Your task to perform on an android device: change text size in settings app Image 0: 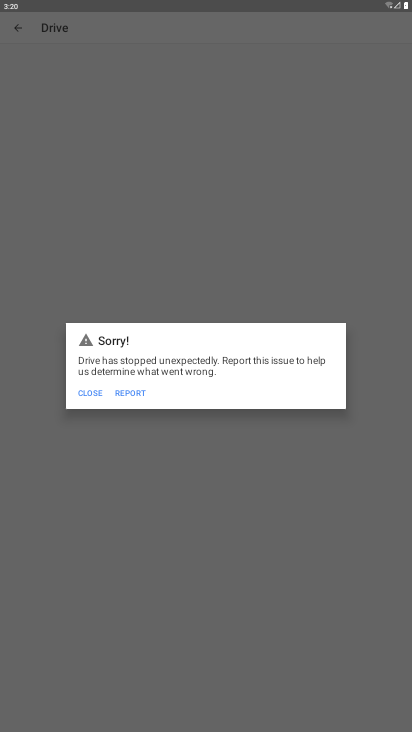
Step 0: press home button
Your task to perform on an android device: change text size in settings app Image 1: 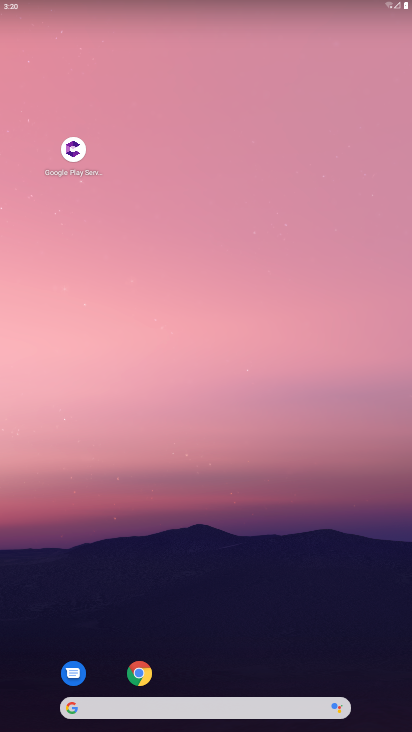
Step 1: drag from (157, 701) to (297, 138)
Your task to perform on an android device: change text size in settings app Image 2: 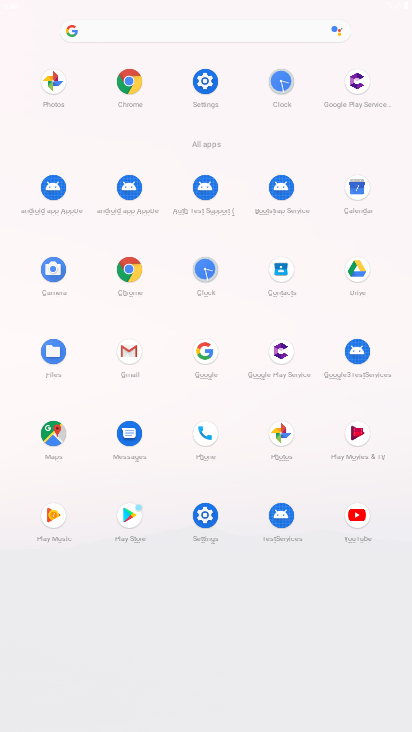
Step 2: click (206, 87)
Your task to perform on an android device: change text size in settings app Image 3: 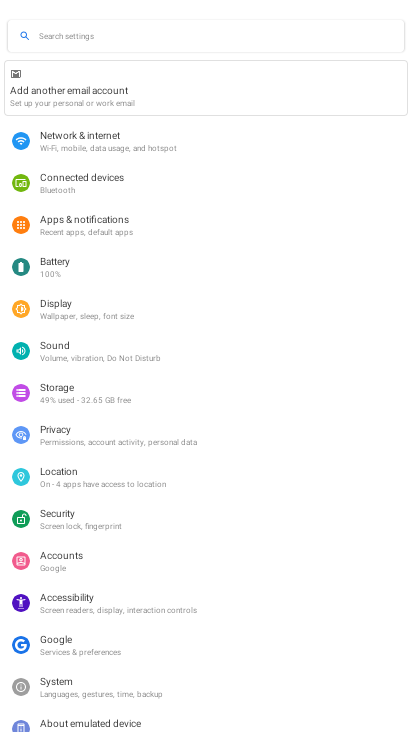
Step 3: click (119, 316)
Your task to perform on an android device: change text size in settings app Image 4: 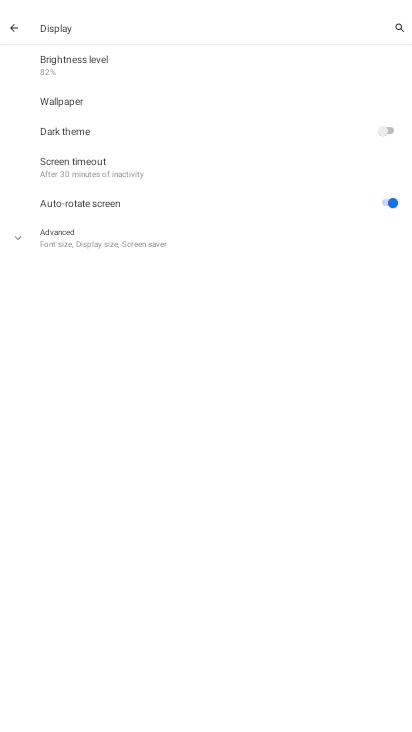
Step 4: click (73, 243)
Your task to perform on an android device: change text size in settings app Image 5: 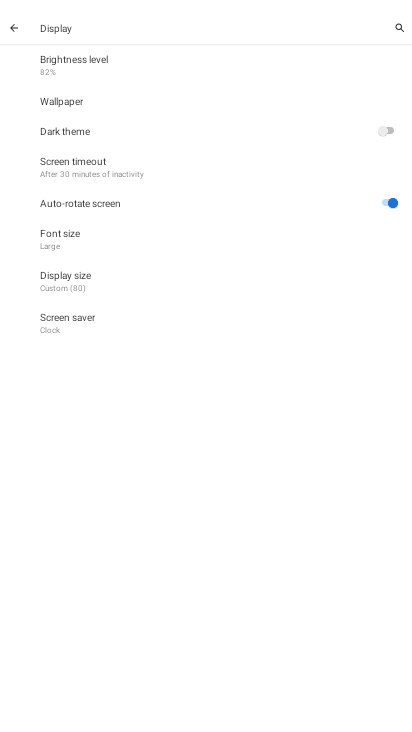
Step 5: click (67, 242)
Your task to perform on an android device: change text size in settings app Image 6: 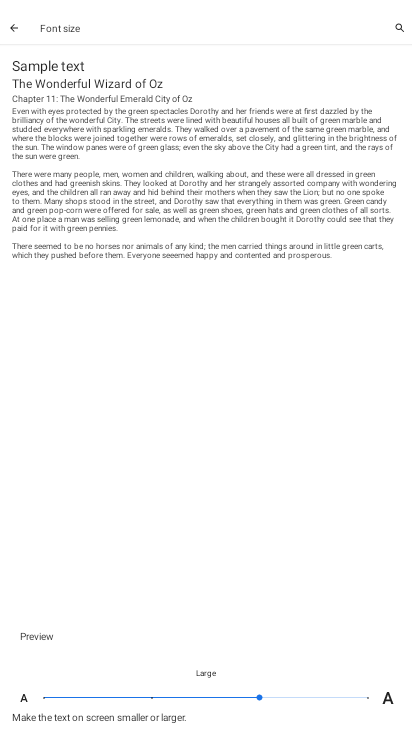
Step 6: click (366, 698)
Your task to perform on an android device: change text size in settings app Image 7: 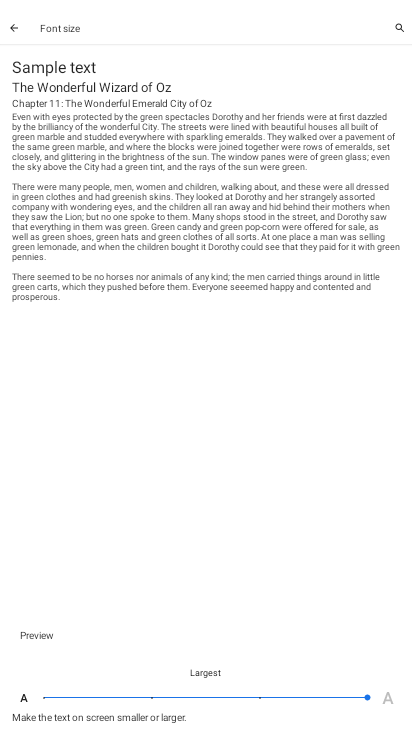
Step 7: task complete